Your task to perform on an android device: Open Google Chrome and click the shortcut for Amazon.com Image 0: 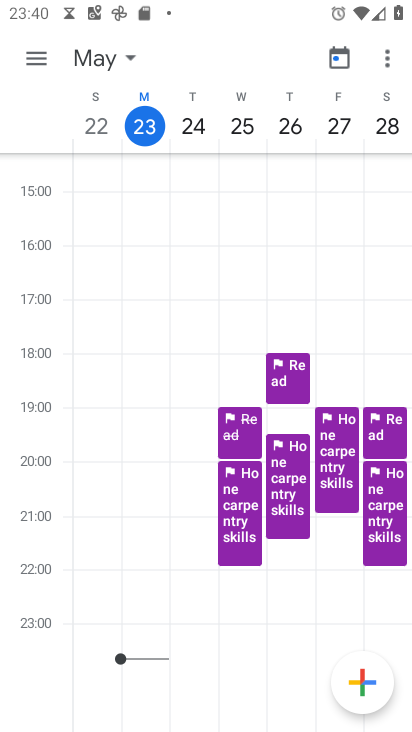
Step 0: press home button
Your task to perform on an android device: Open Google Chrome and click the shortcut for Amazon.com Image 1: 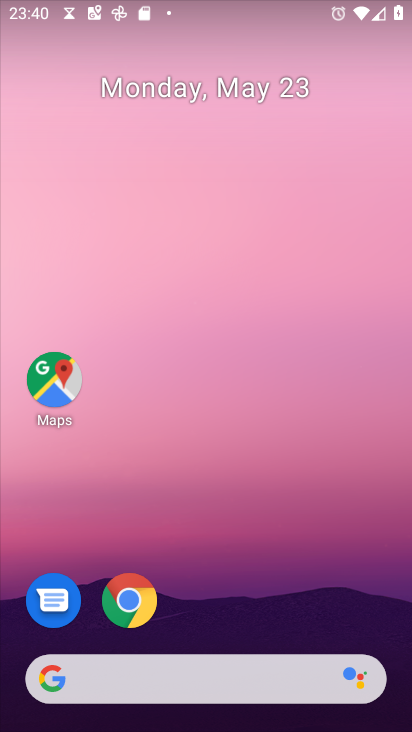
Step 1: click (125, 605)
Your task to perform on an android device: Open Google Chrome and click the shortcut for Amazon.com Image 2: 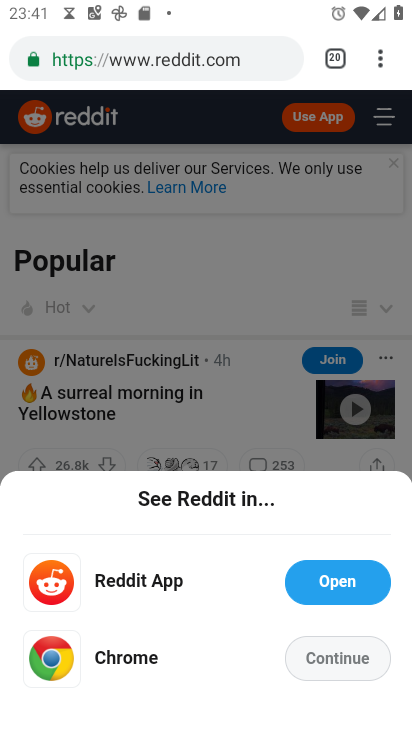
Step 2: click (381, 63)
Your task to perform on an android device: Open Google Chrome and click the shortcut for Amazon.com Image 3: 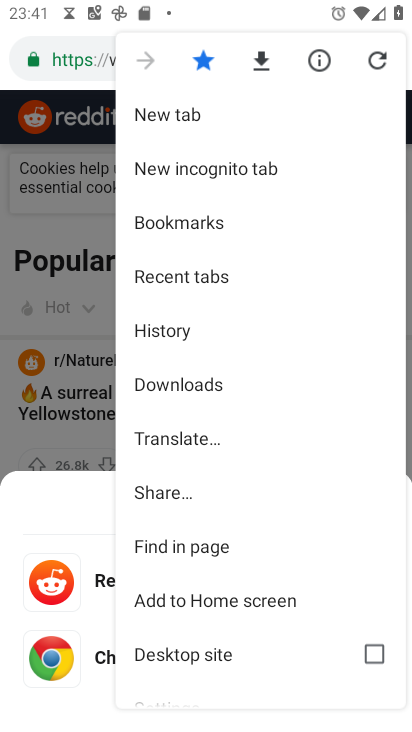
Step 3: click (186, 113)
Your task to perform on an android device: Open Google Chrome and click the shortcut for Amazon.com Image 4: 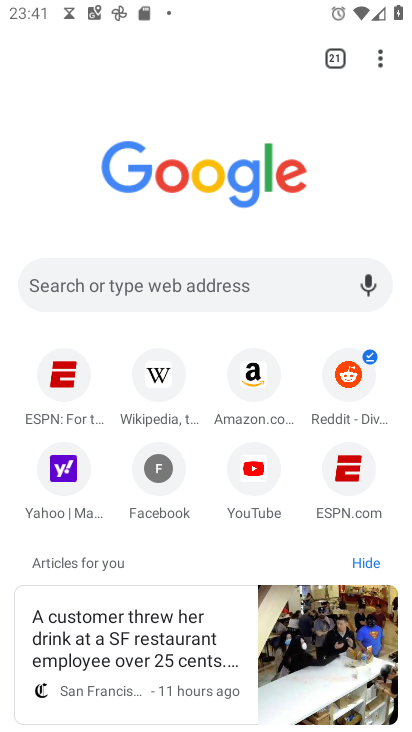
Step 4: click (252, 379)
Your task to perform on an android device: Open Google Chrome and click the shortcut for Amazon.com Image 5: 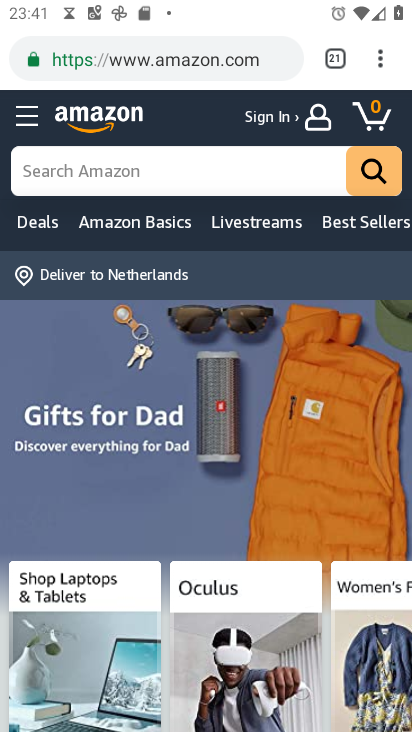
Step 5: task complete